Your task to perform on an android device: find which apps use the phone's location Image 0: 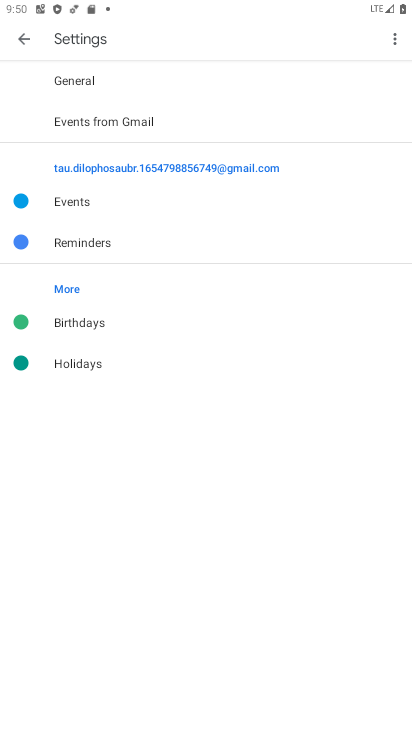
Step 0: press home button
Your task to perform on an android device: find which apps use the phone's location Image 1: 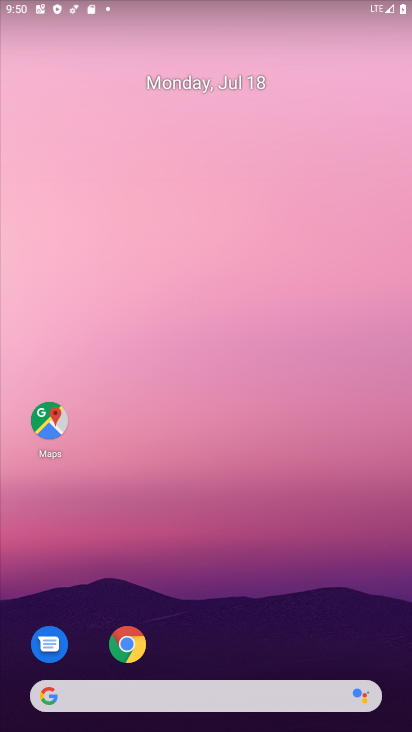
Step 1: drag from (313, 568) to (347, 129)
Your task to perform on an android device: find which apps use the phone's location Image 2: 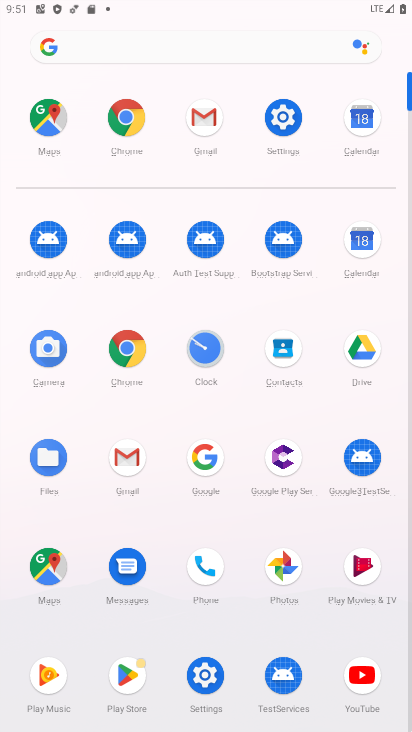
Step 2: click (285, 119)
Your task to perform on an android device: find which apps use the phone's location Image 3: 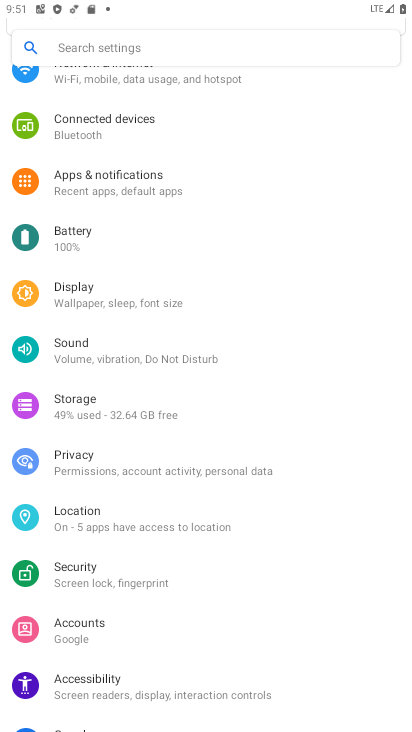
Step 3: drag from (327, 486) to (334, 398)
Your task to perform on an android device: find which apps use the phone's location Image 4: 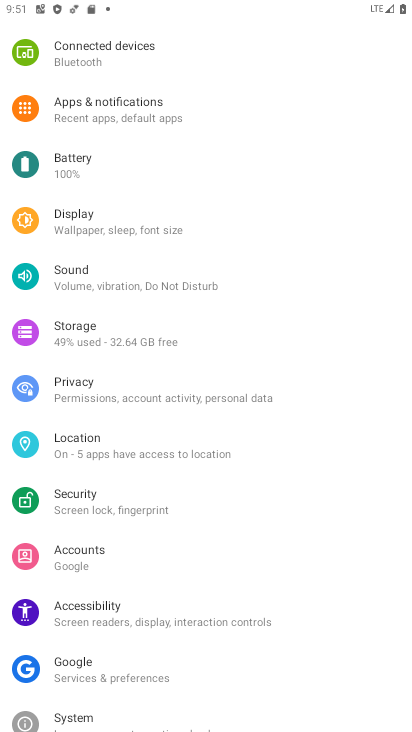
Step 4: drag from (321, 497) to (323, 411)
Your task to perform on an android device: find which apps use the phone's location Image 5: 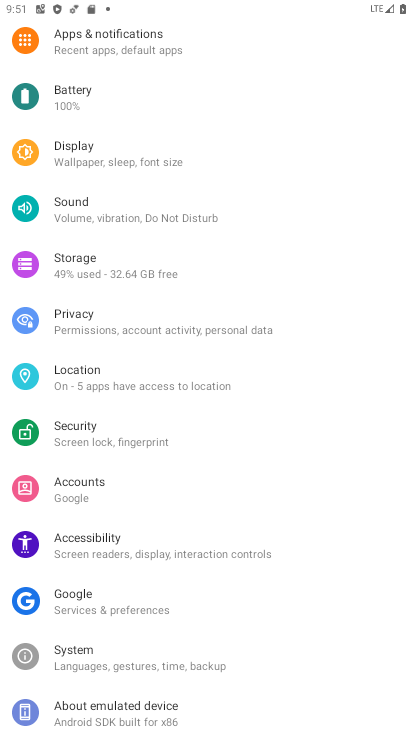
Step 5: drag from (318, 525) to (319, 420)
Your task to perform on an android device: find which apps use the phone's location Image 6: 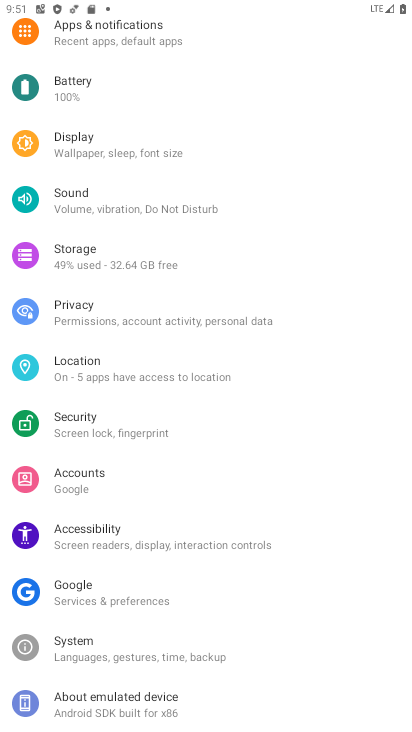
Step 6: click (233, 379)
Your task to perform on an android device: find which apps use the phone's location Image 7: 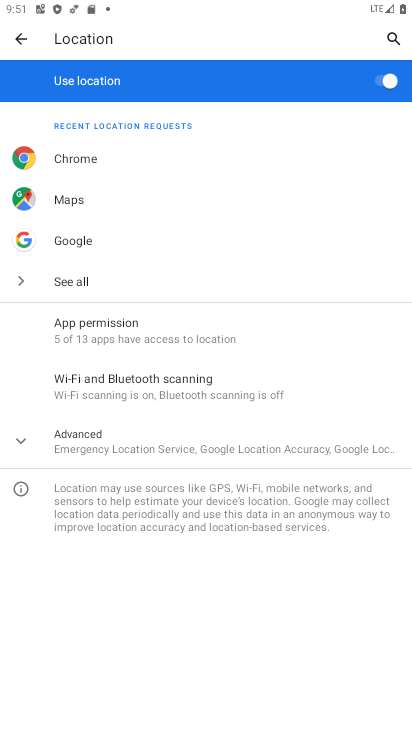
Step 7: click (226, 341)
Your task to perform on an android device: find which apps use the phone's location Image 8: 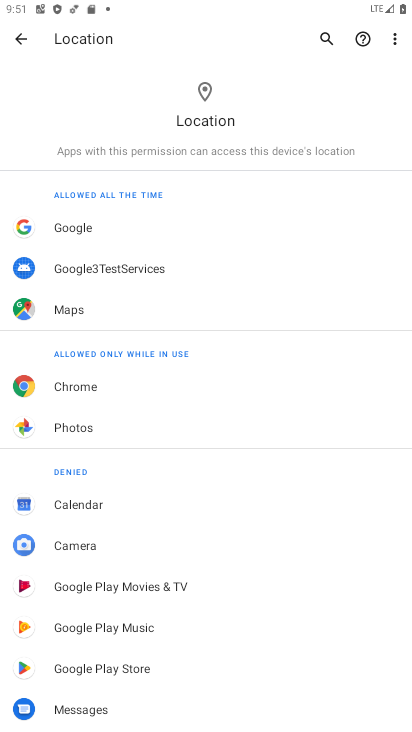
Step 8: drag from (297, 527) to (297, 396)
Your task to perform on an android device: find which apps use the phone's location Image 9: 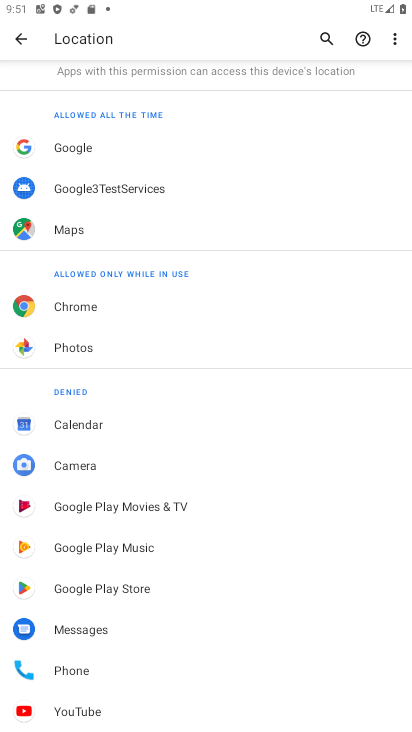
Step 9: drag from (289, 540) to (289, 404)
Your task to perform on an android device: find which apps use the phone's location Image 10: 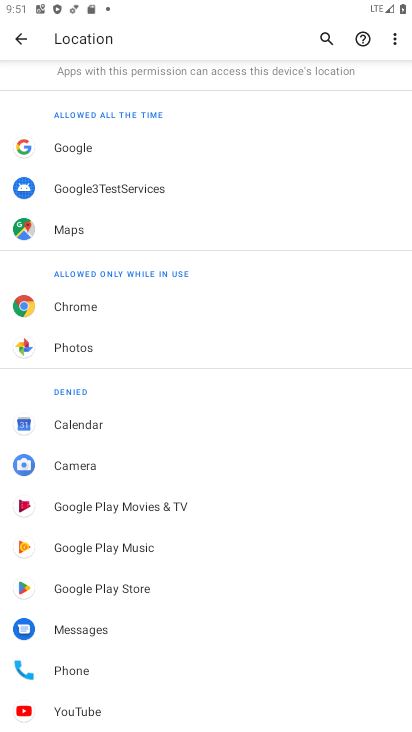
Step 10: click (98, 356)
Your task to perform on an android device: find which apps use the phone's location Image 11: 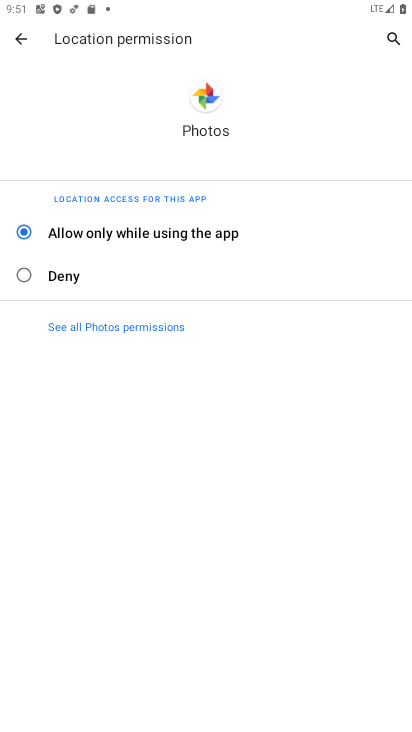
Step 11: task complete